Your task to perform on an android device: Show me popular games on the Play Store Image 0: 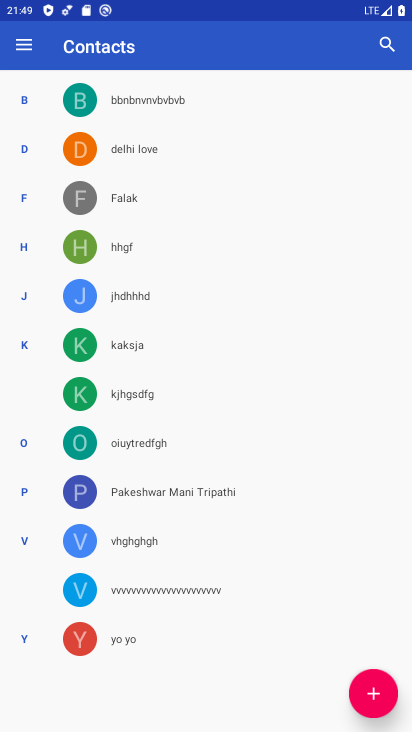
Step 0: press home button
Your task to perform on an android device: Show me popular games on the Play Store Image 1: 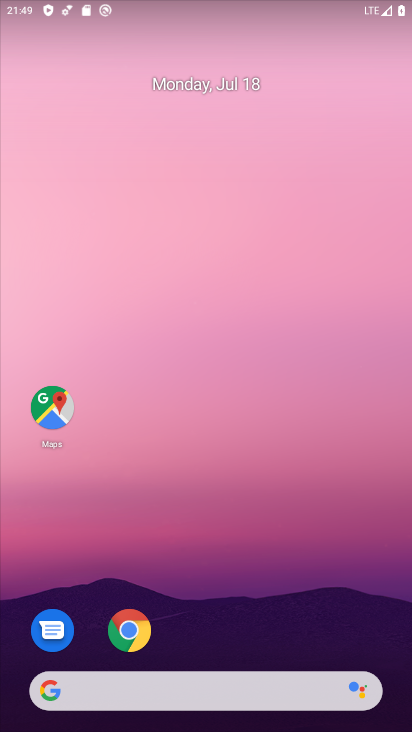
Step 1: drag from (237, 630) to (171, 12)
Your task to perform on an android device: Show me popular games on the Play Store Image 2: 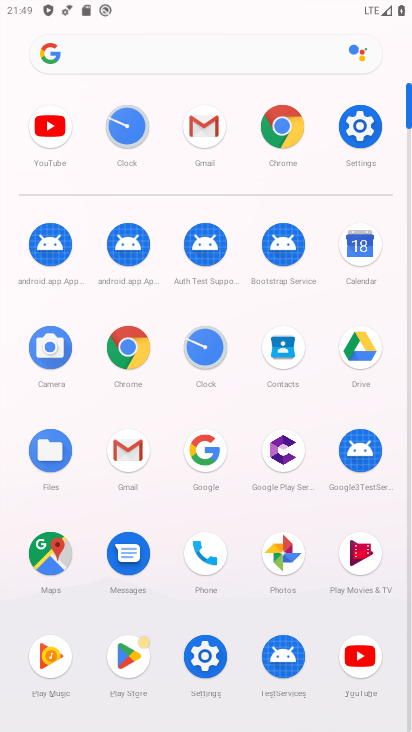
Step 2: click (127, 639)
Your task to perform on an android device: Show me popular games on the Play Store Image 3: 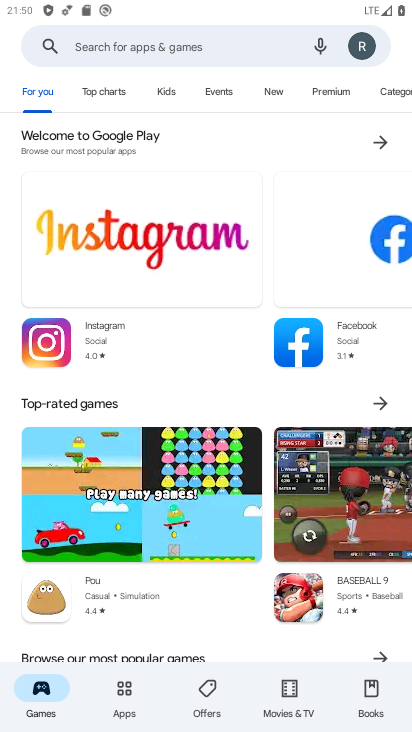
Step 3: task complete